Your task to perform on an android device: Go to location settings Image 0: 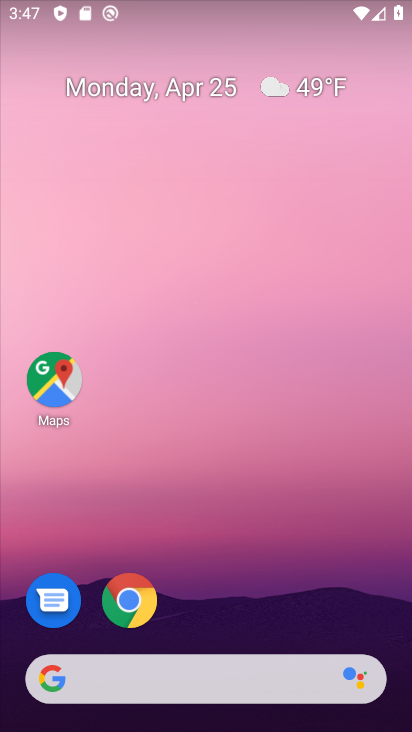
Step 0: drag from (252, 623) to (312, 4)
Your task to perform on an android device: Go to location settings Image 1: 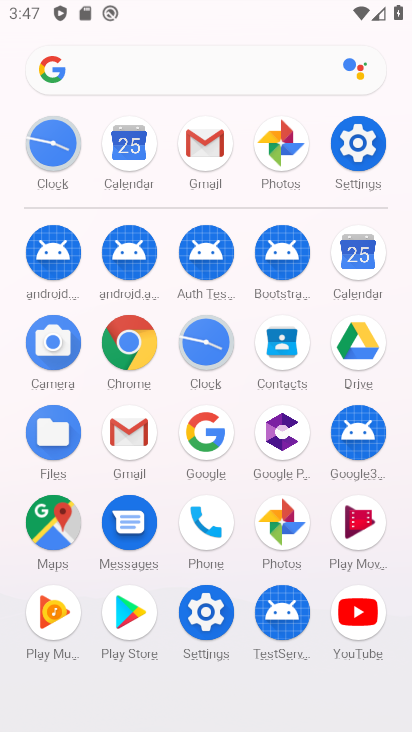
Step 1: click (354, 134)
Your task to perform on an android device: Go to location settings Image 2: 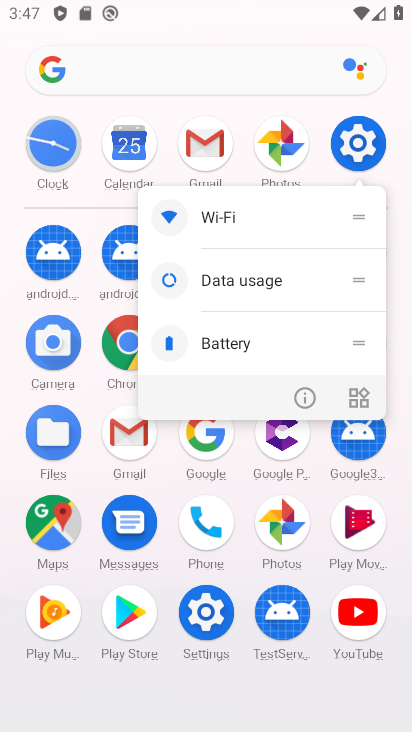
Step 2: click (354, 135)
Your task to perform on an android device: Go to location settings Image 3: 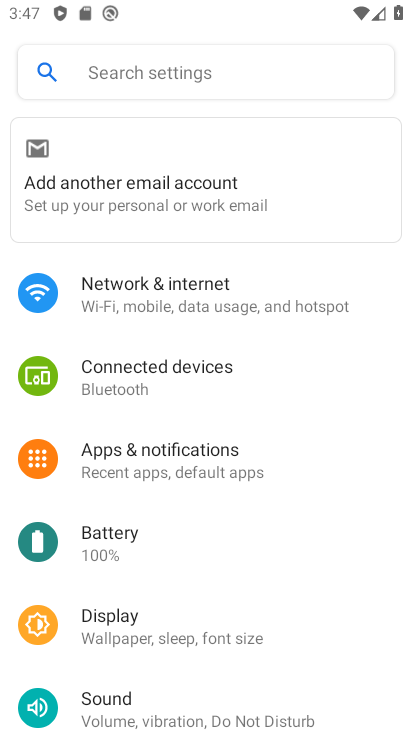
Step 3: drag from (219, 669) to (276, 134)
Your task to perform on an android device: Go to location settings Image 4: 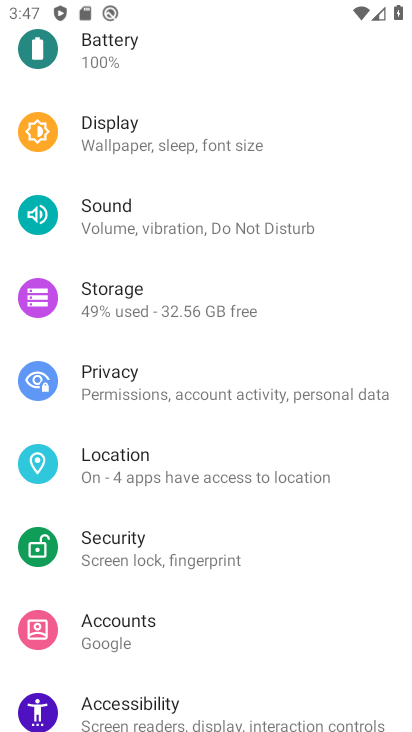
Step 4: click (219, 471)
Your task to perform on an android device: Go to location settings Image 5: 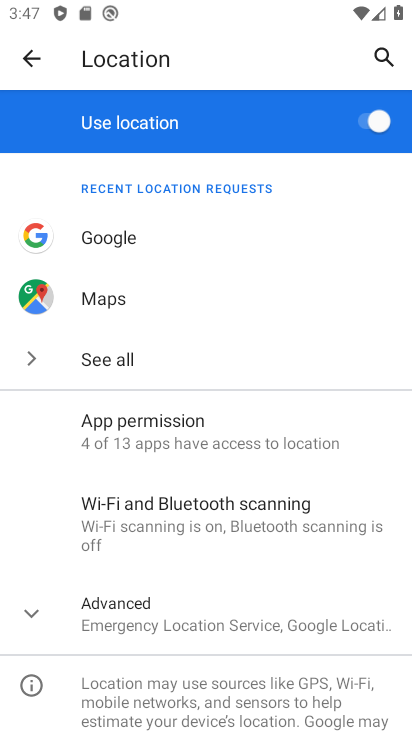
Step 5: click (30, 610)
Your task to perform on an android device: Go to location settings Image 6: 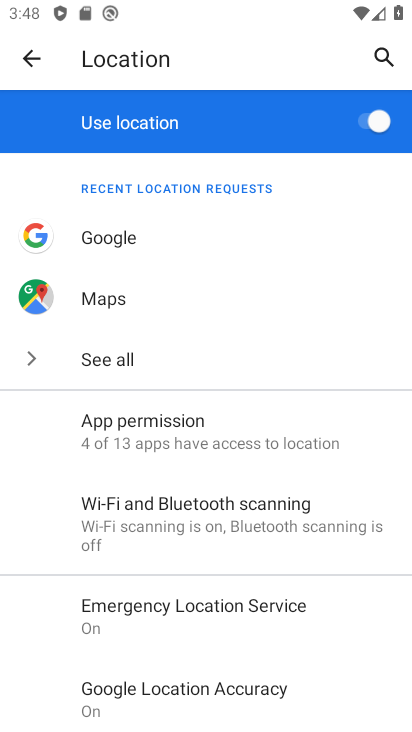
Step 6: task complete